Your task to perform on an android device: What's the weather going to be tomorrow? Image 0: 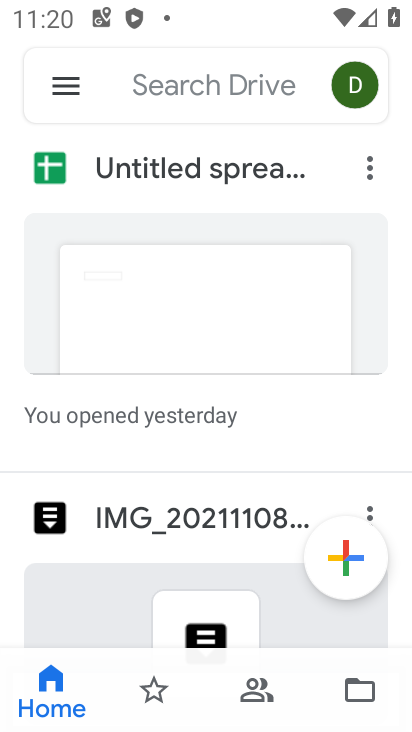
Step 0: press home button
Your task to perform on an android device: What's the weather going to be tomorrow? Image 1: 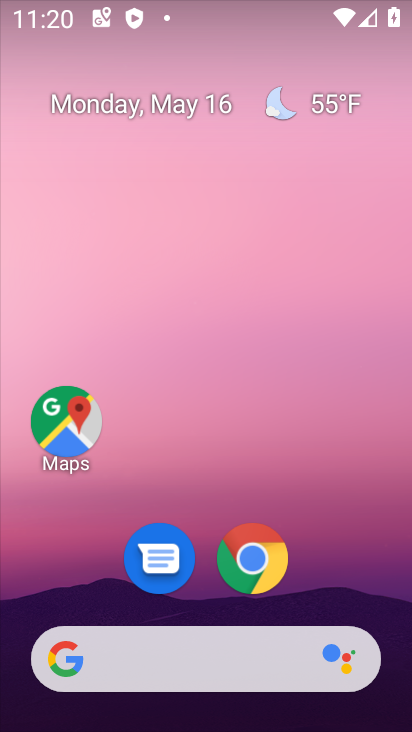
Step 1: drag from (321, 570) to (340, 133)
Your task to perform on an android device: What's the weather going to be tomorrow? Image 2: 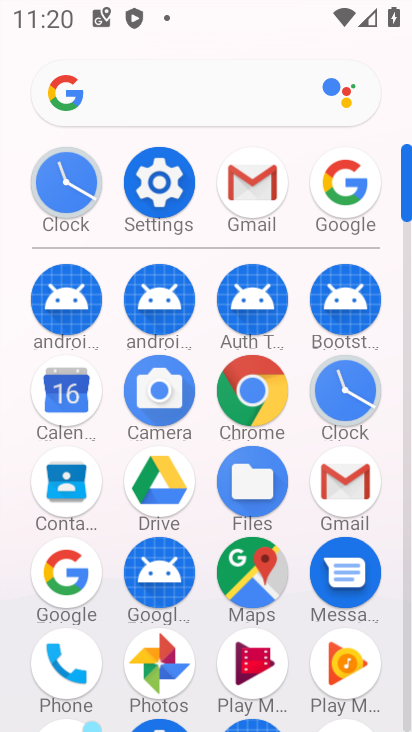
Step 2: click (66, 580)
Your task to perform on an android device: What's the weather going to be tomorrow? Image 3: 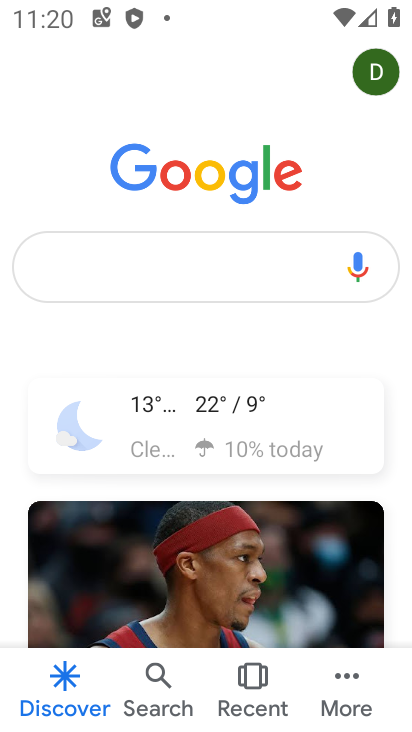
Step 3: click (197, 278)
Your task to perform on an android device: What's the weather going to be tomorrow? Image 4: 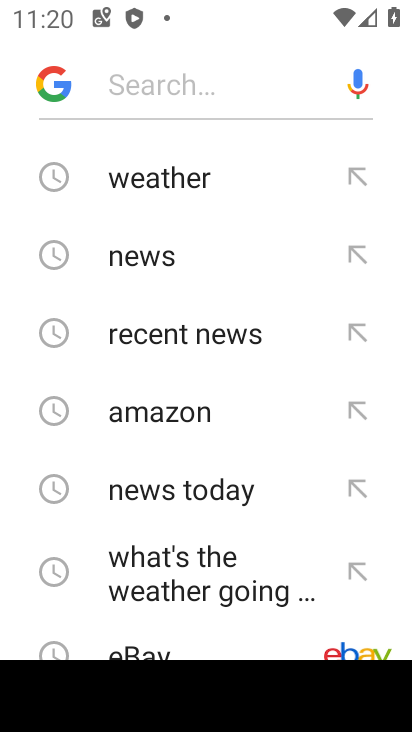
Step 4: type "weather going to be tomorrow"
Your task to perform on an android device: What's the weather going to be tomorrow? Image 5: 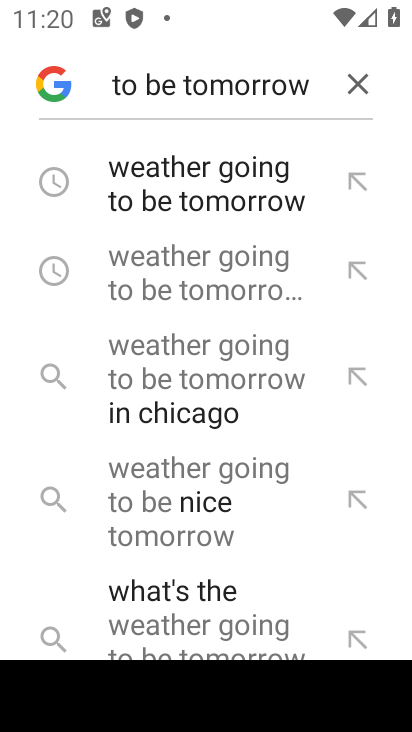
Step 5: click (221, 182)
Your task to perform on an android device: What's the weather going to be tomorrow? Image 6: 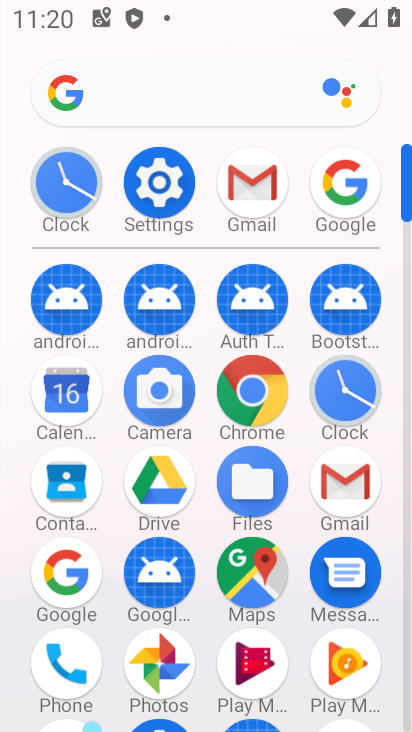
Step 6: task complete